Your task to perform on an android device: set the stopwatch Image 0: 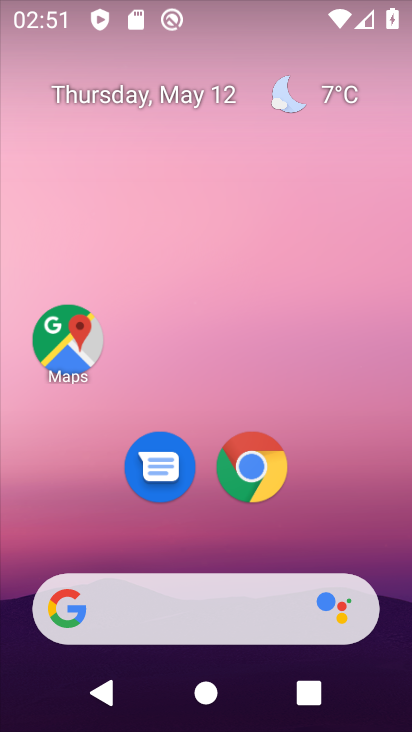
Step 0: drag from (378, 519) to (347, 81)
Your task to perform on an android device: set the stopwatch Image 1: 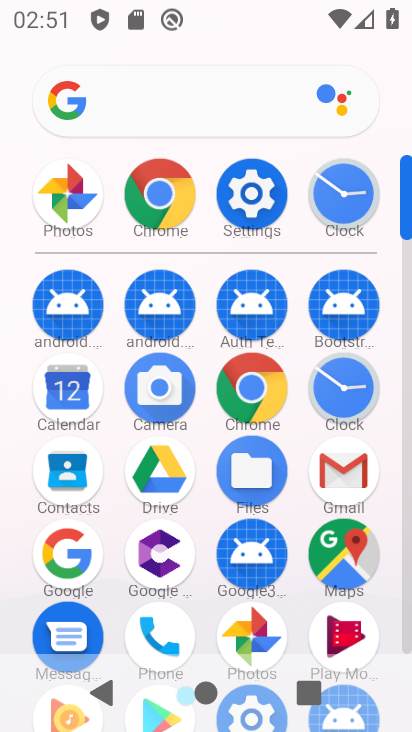
Step 1: click (343, 410)
Your task to perform on an android device: set the stopwatch Image 2: 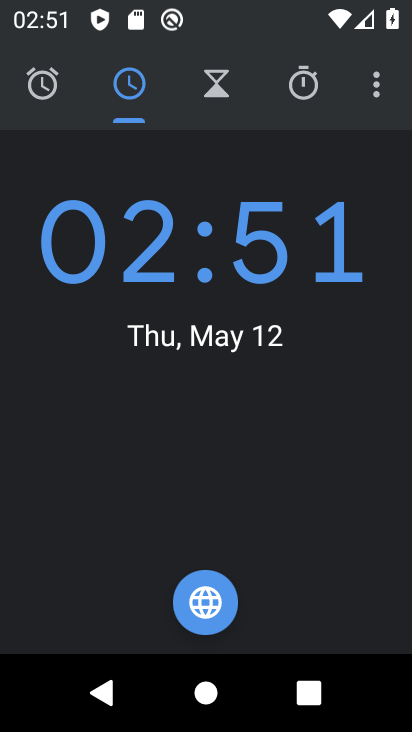
Step 2: click (297, 94)
Your task to perform on an android device: set the stopwatch Image 3: 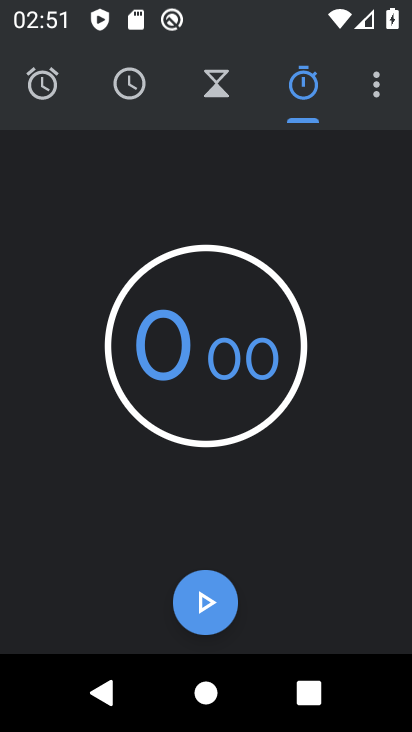
Step 3: task complete